Your task to perform on an android device: uninstall "LinkedIn" Image 0: 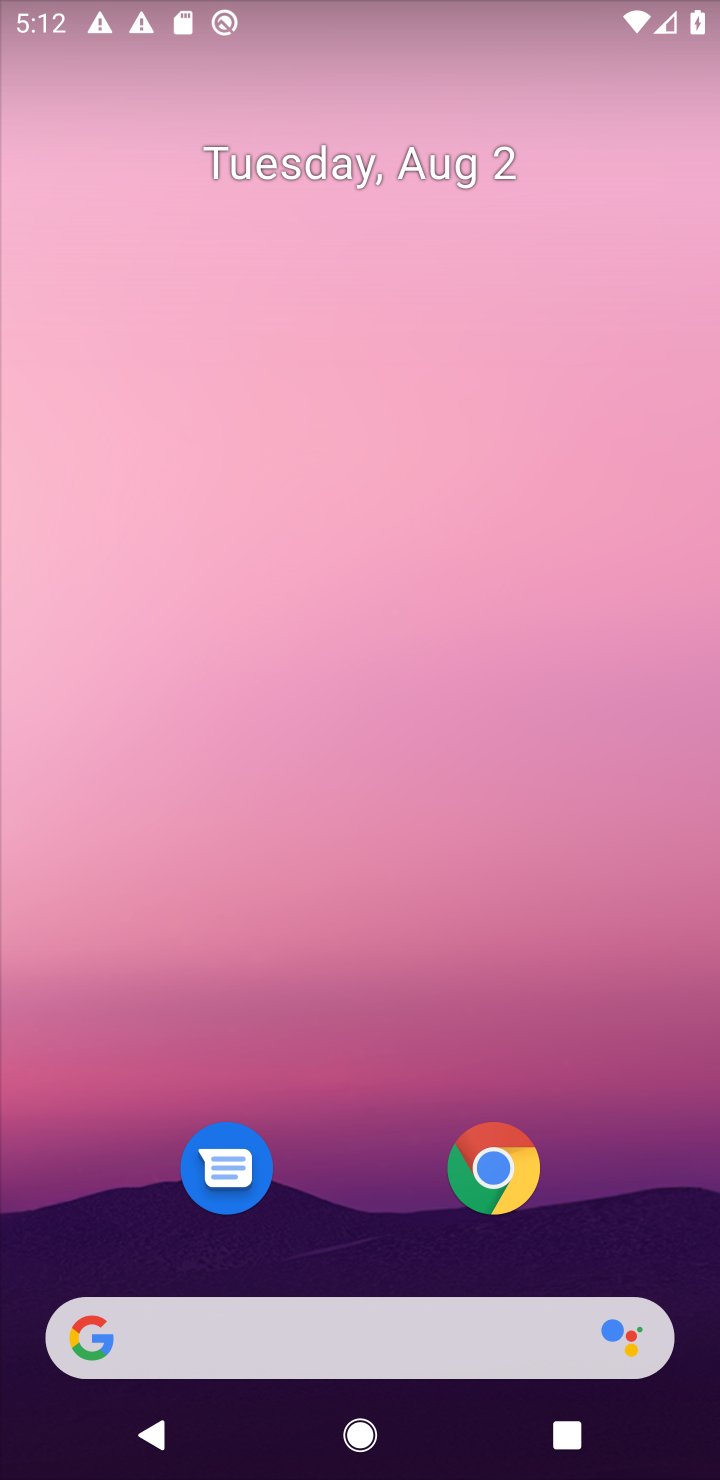
Step 0: drag from (303, 1206) to (507, 114)
Your task to perform on an android device: uninstall "LinkedIn" Image 1: 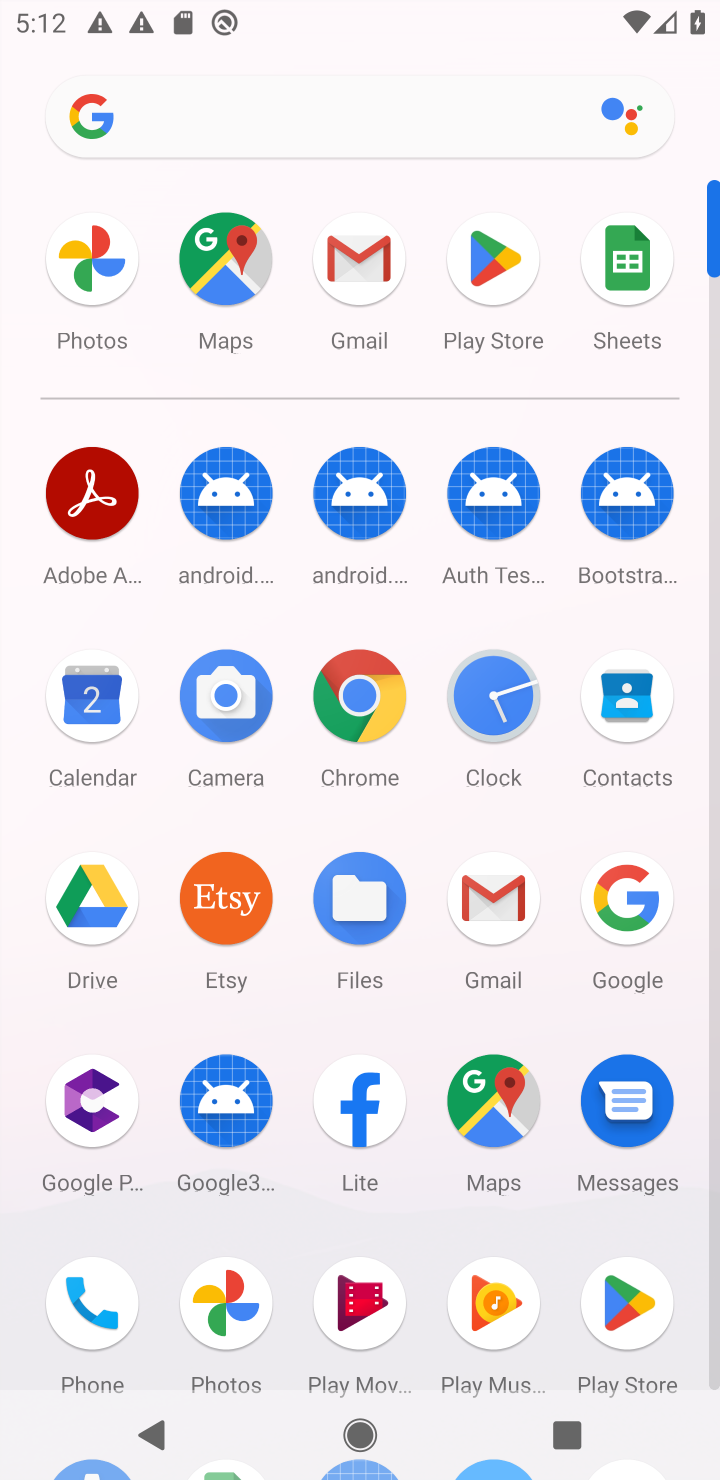
Step 1: click (491, 292)
Your task to perform on an android device: uninstall "LinkedIn" Image 2: 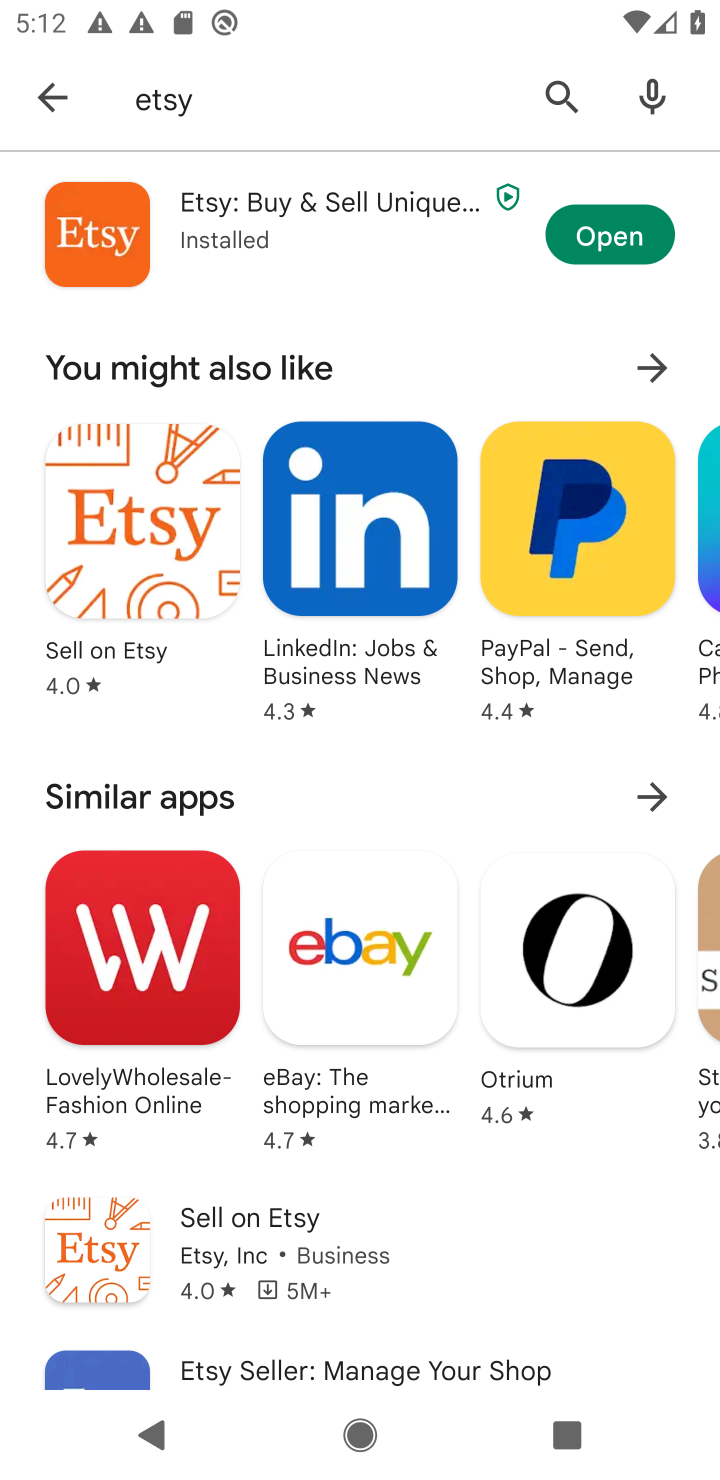
Step 2: click (269, 111)
Your task to perform on an android device: uninstall "LinkedIn" Image 3: 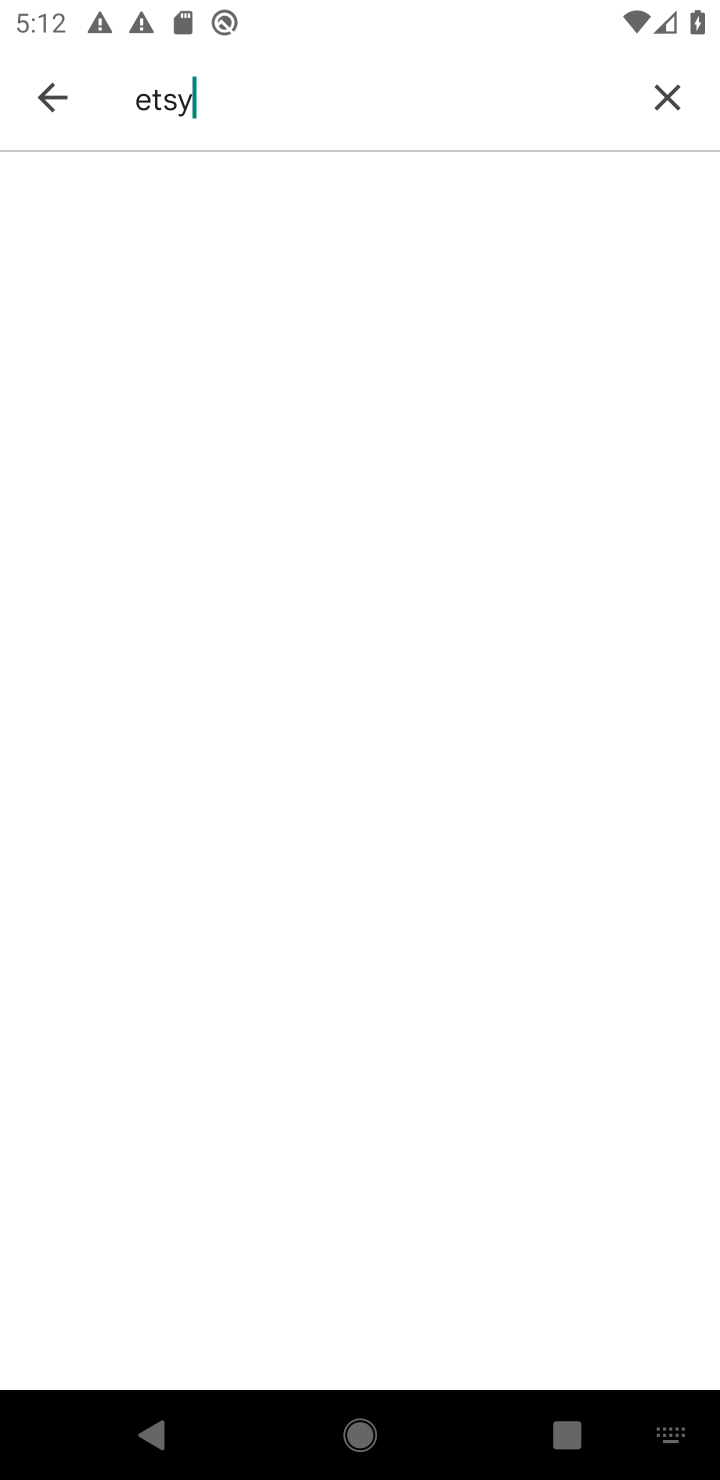
Step 3: click (677, 102)
Your task to perform on an android device: uninstall "LinkedIn" Image 4: 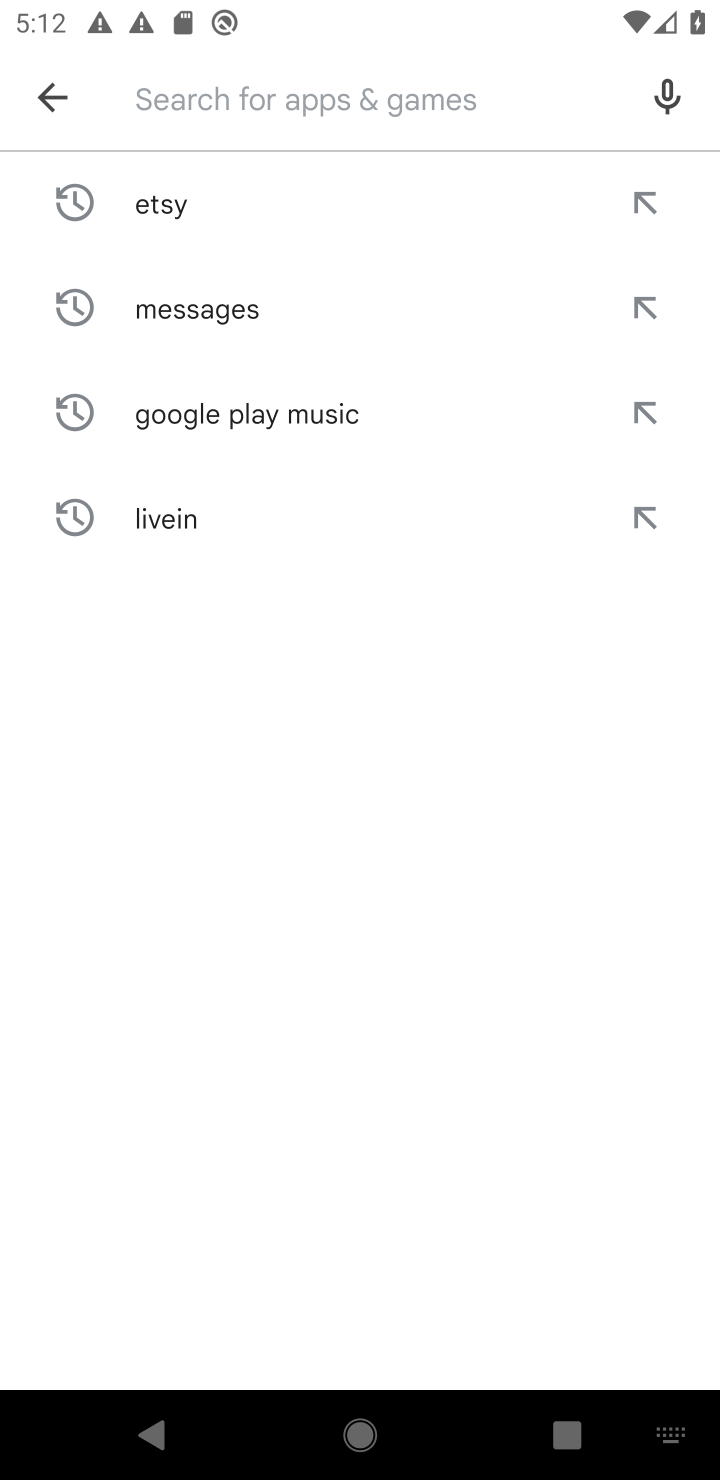
Step 4: type "linkedin"
Your task to perform on an android device: uninstall "LinkedIn" Image 5: 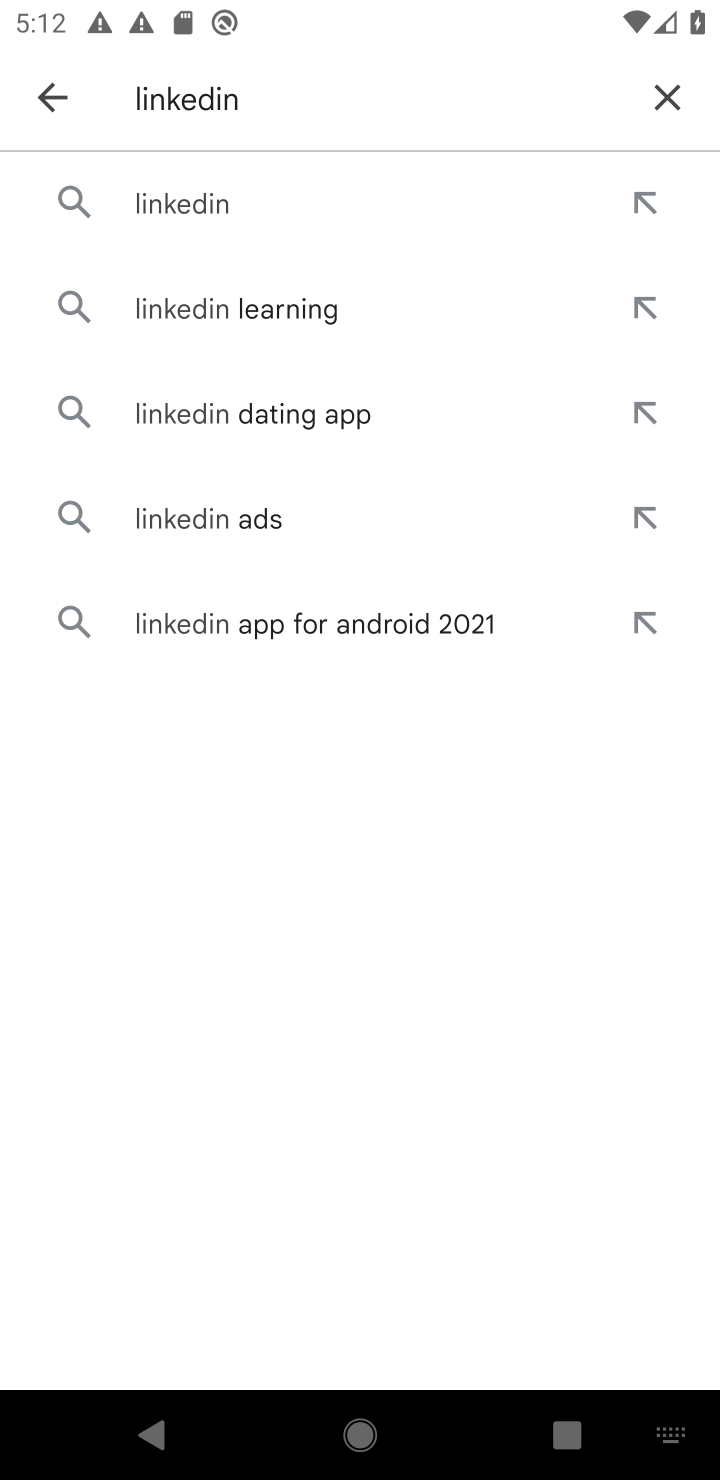
Step 5: click (238, 201)
Your task to perform on an android device: uninstall "LinkedIn" Image 6: 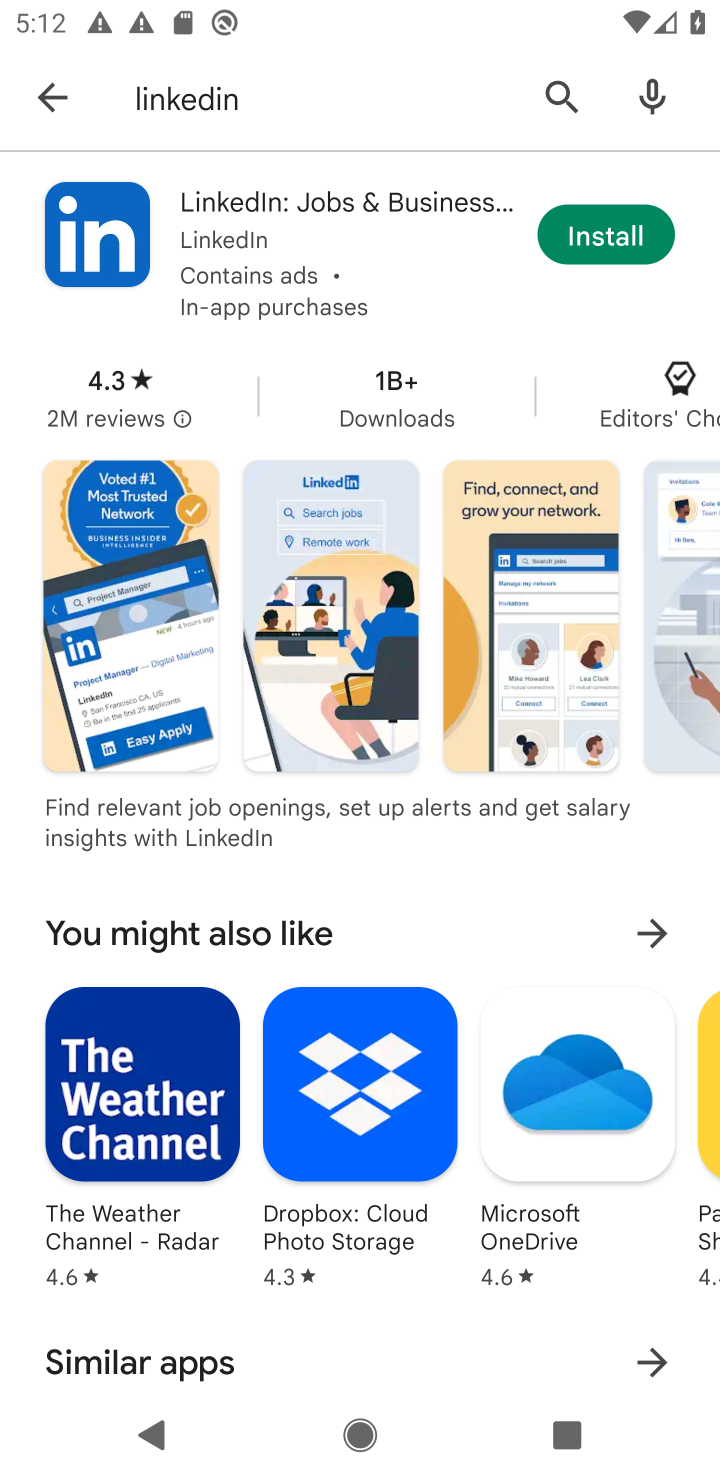
Step 6: task complete